Your task to perform on an android device: check battery use Image 0: 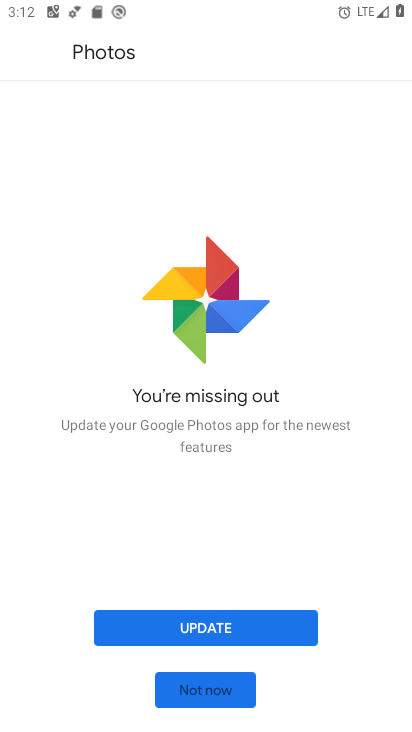
Step 0: press home button
Your task to perform on an android device: check battery use Image 1: 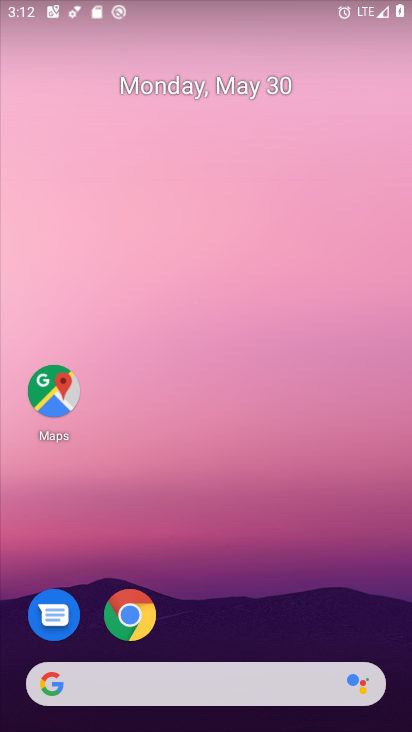
Step 1: drag from (202, 554) to (239, 14)
Your task to perform on an android device: check battery use Image 2: 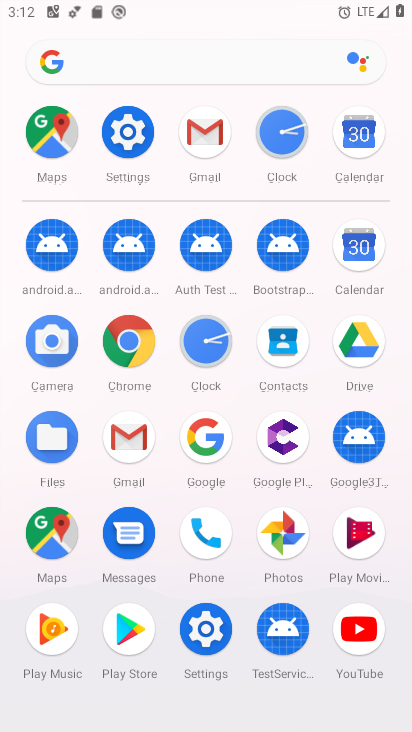
Step 2: click (132, 132)
Your task to perform on an android device: check battery use Image 3: 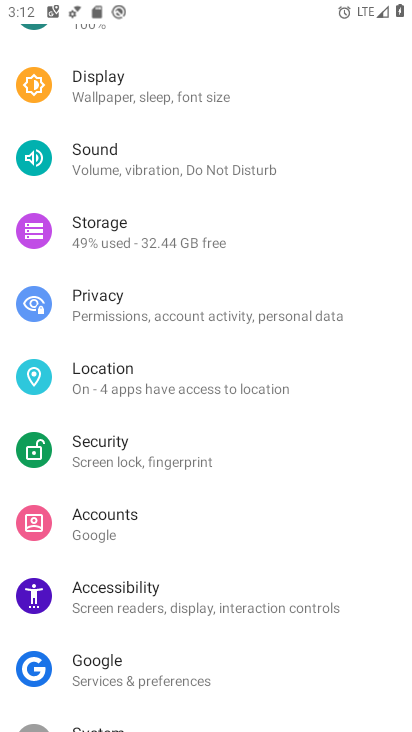
Step 3: drag from (158, 151) to (147, 304)
Your task to perform on an android device: check battery use Image 4: 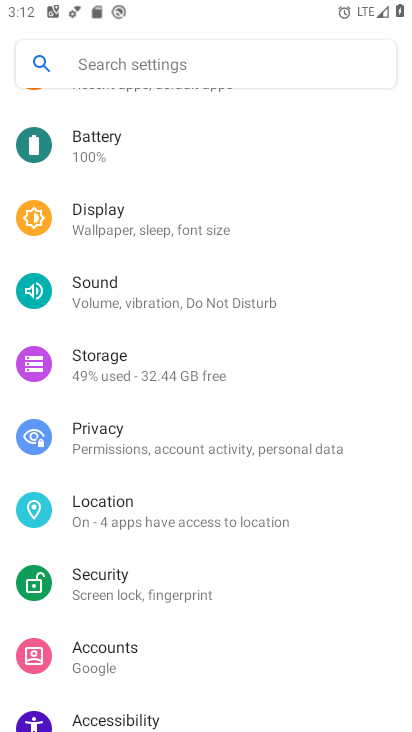
Step 4: click (172, 146)
Your task to perform on an android device: check battery use Image 5: 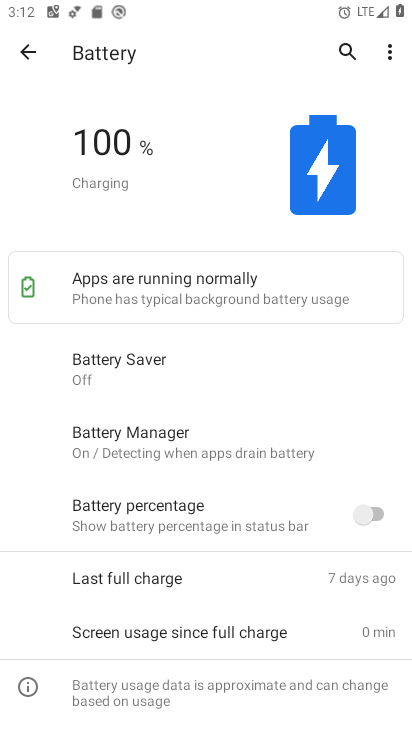
Step 5: task complete